Your task to perform on an android device: install app "DuckDuckGo Privacy Browser" Image 0: 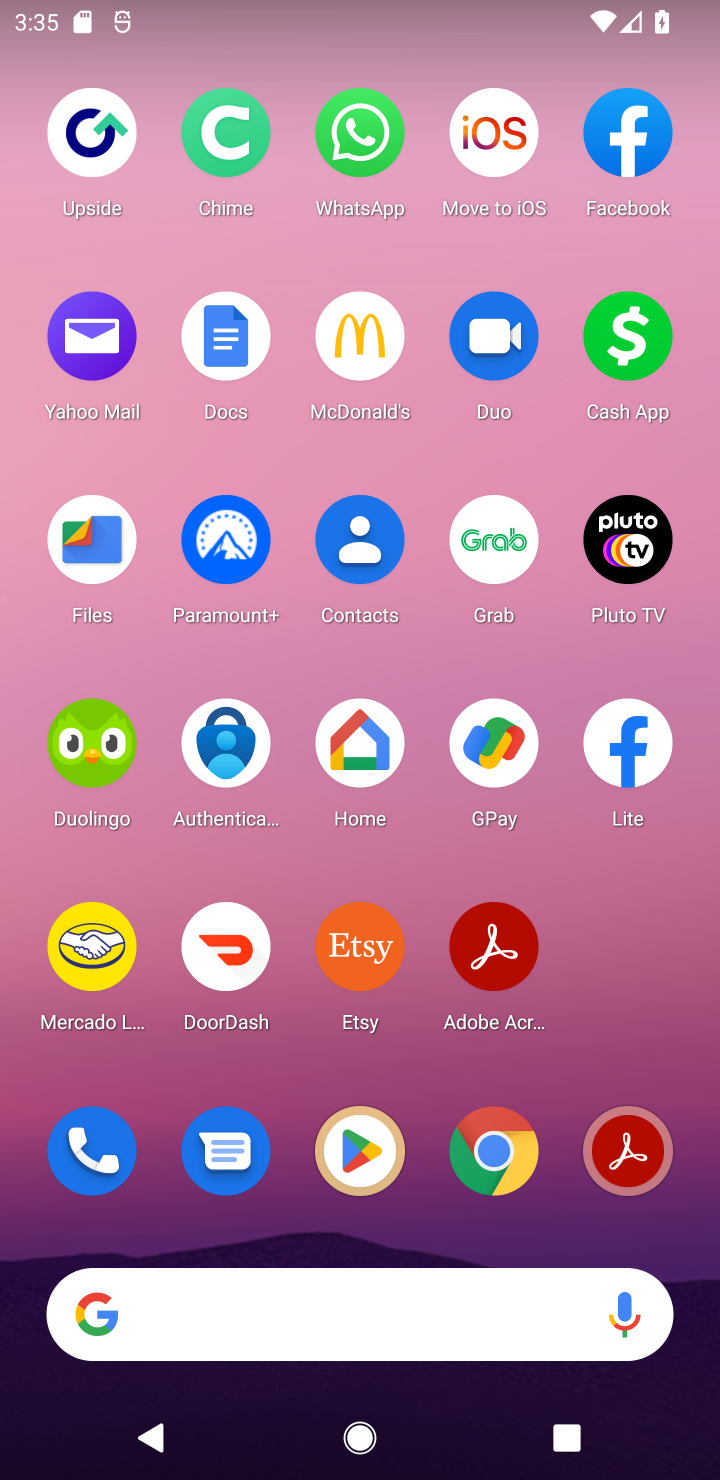
Step 0: click (382, 1132)
Your task to perform on an android device: install app "DuckDuckGo Privacy Browser" Image 1: 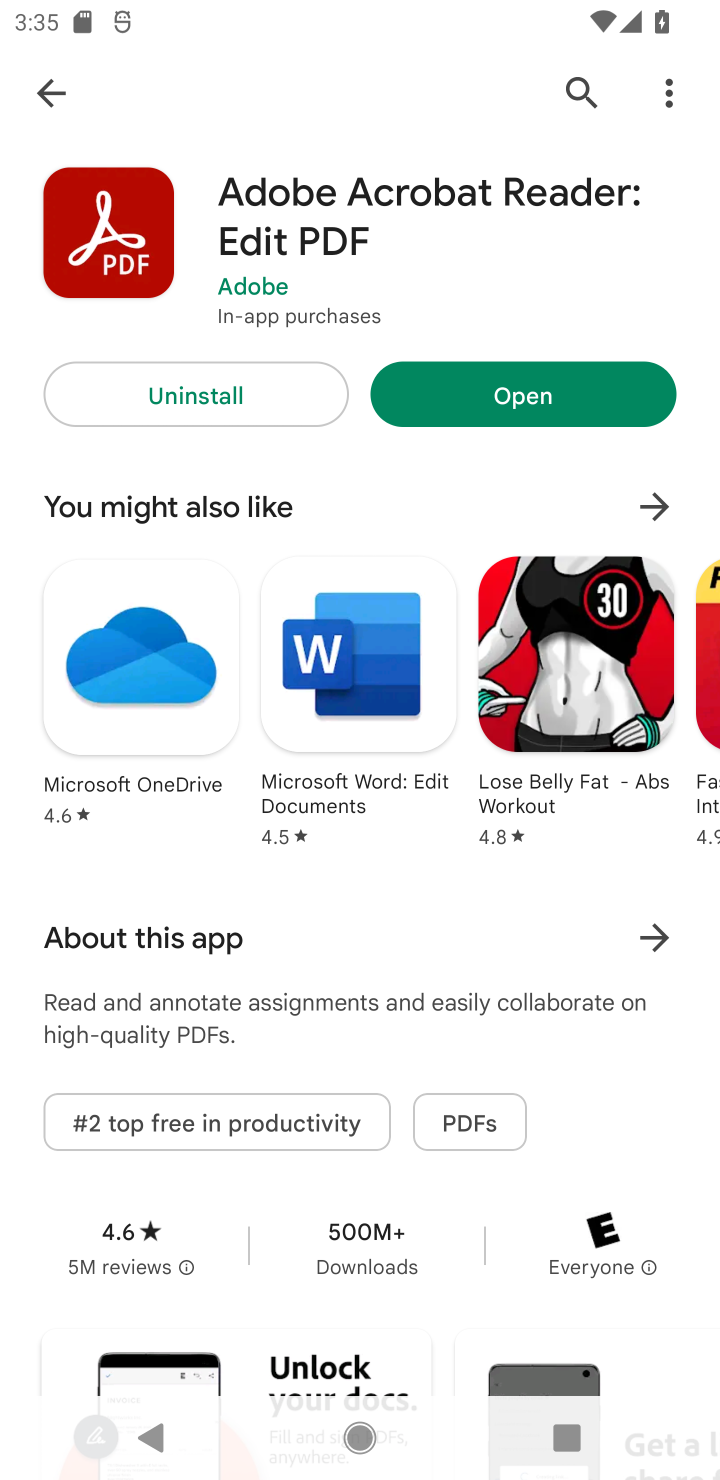
Step 1: click (24, 99)
Your task to perform on an android device: install app "DuckDuckGo Privacy Browser" Image 2: 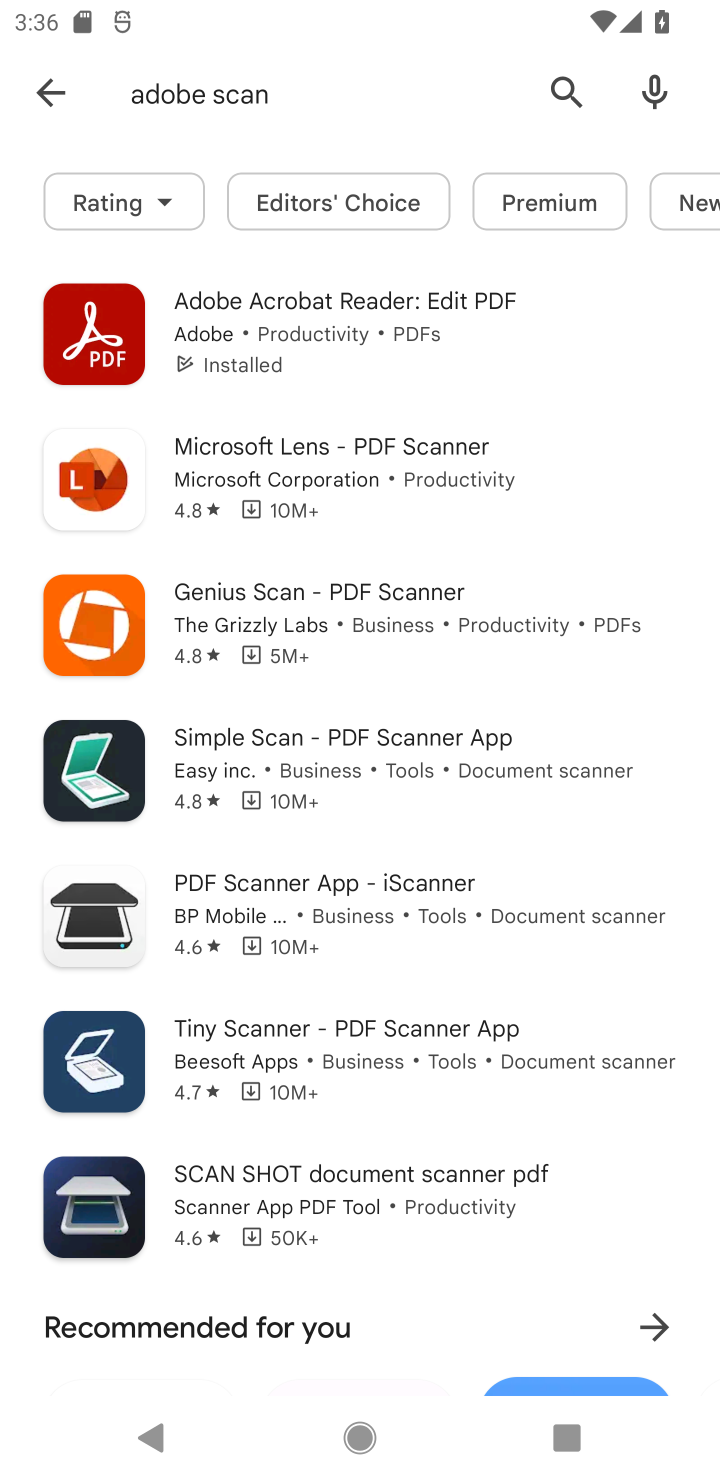
Step 2: click (535, 92)
Your task to perform on an android device: install app "DuckDuckGo Privacy Browser" Image 3: 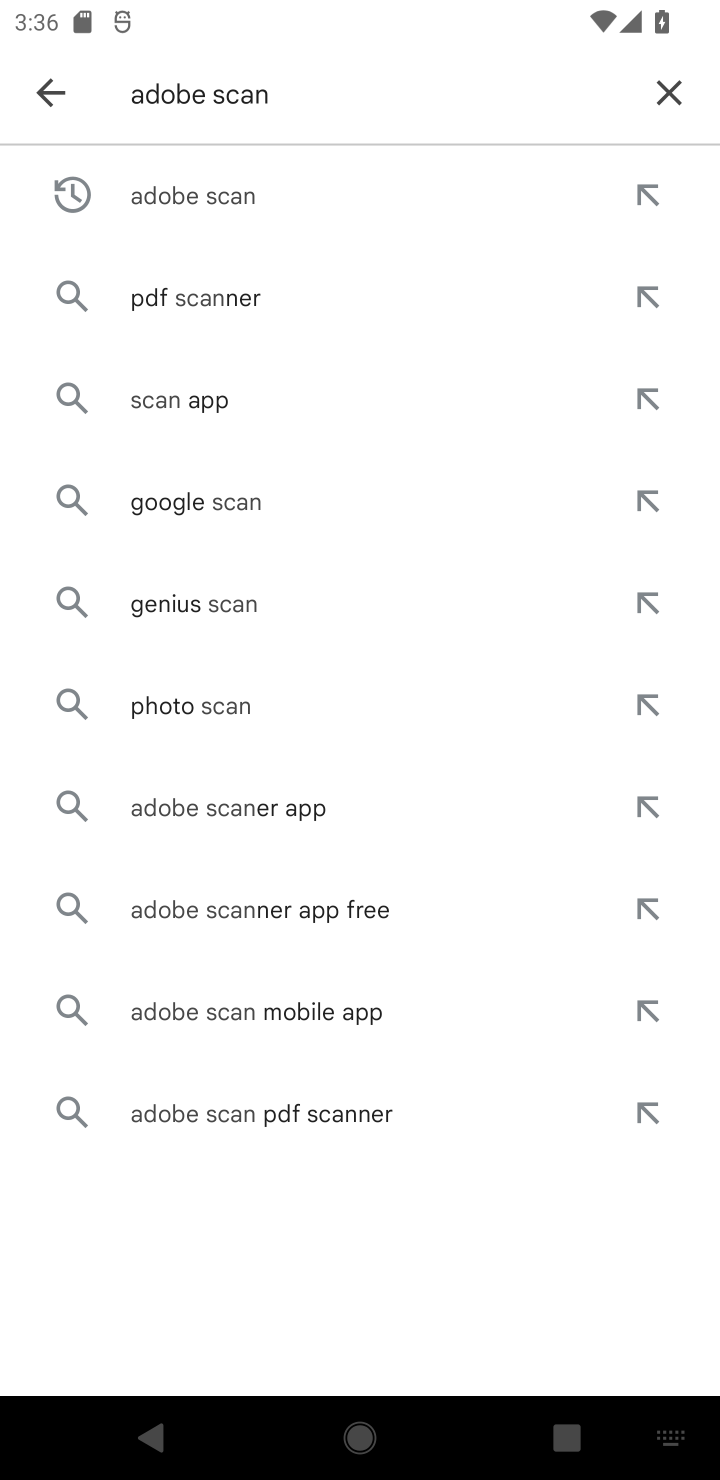
Step 3: click (653, 92)
Your task to perform on an android device: install app "DuckDuckGo Privacy Browser" Image 4: 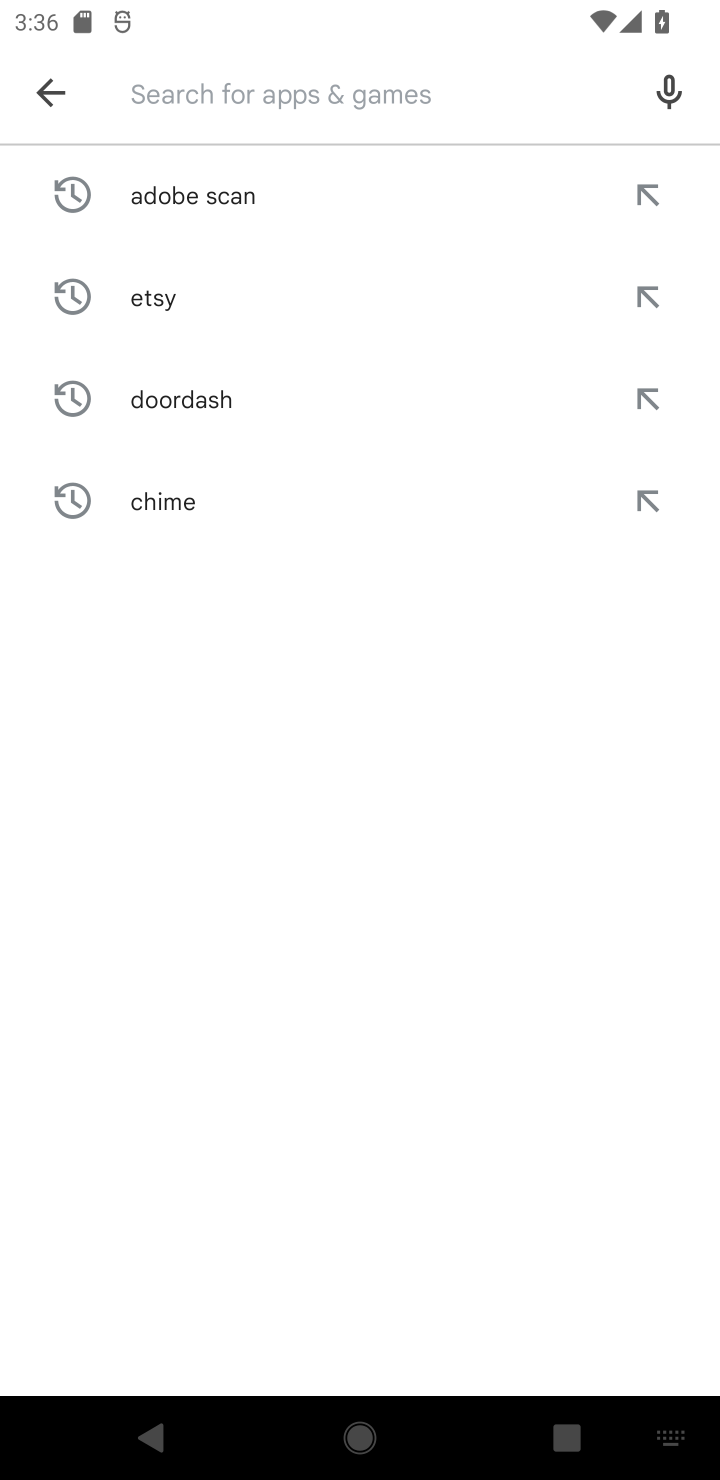
Step 4: type "duckduck go"
Your task to perform on an android device: install app "DuckDuckGo Privacy Browser" Image 5: 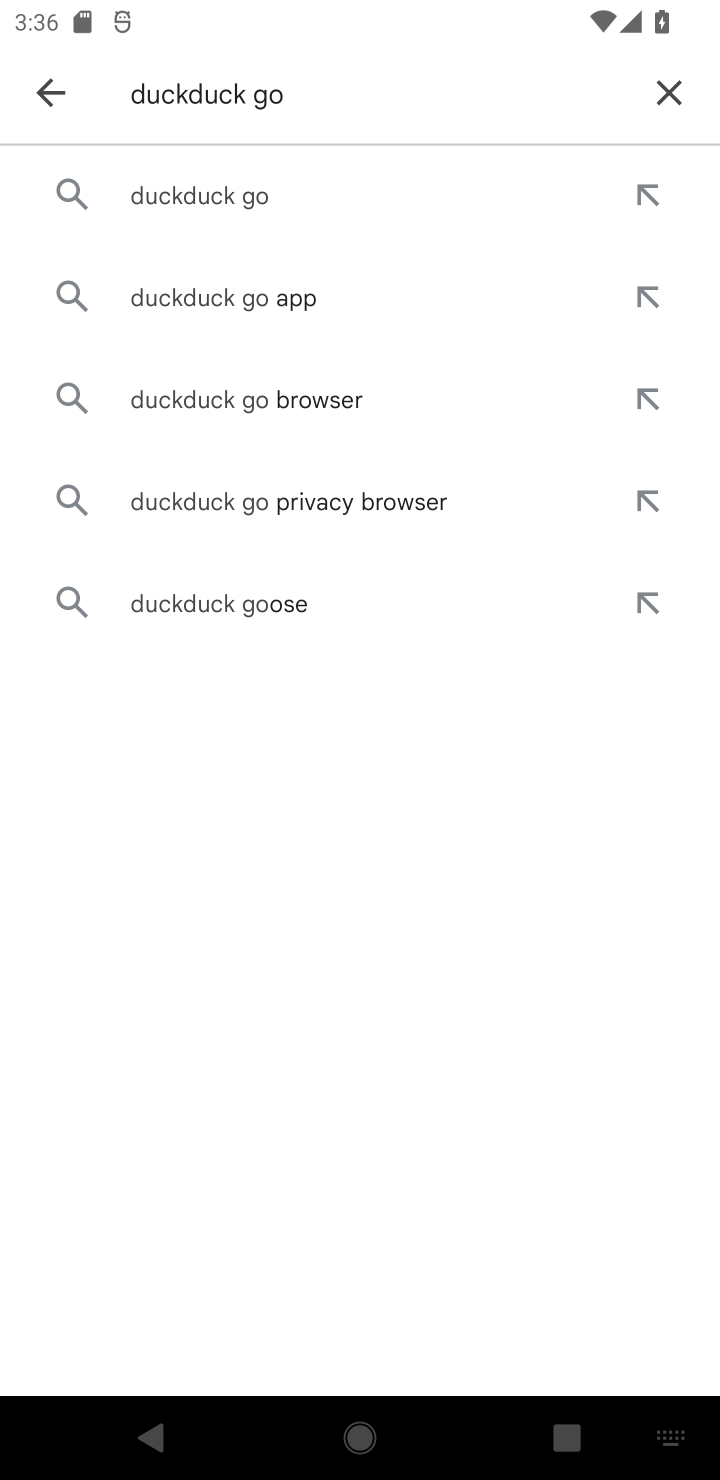
Step 5: click (394, 212)
Your task to perform on an android device: install app "DuckDuckGo Privacy Browser" Image 6: 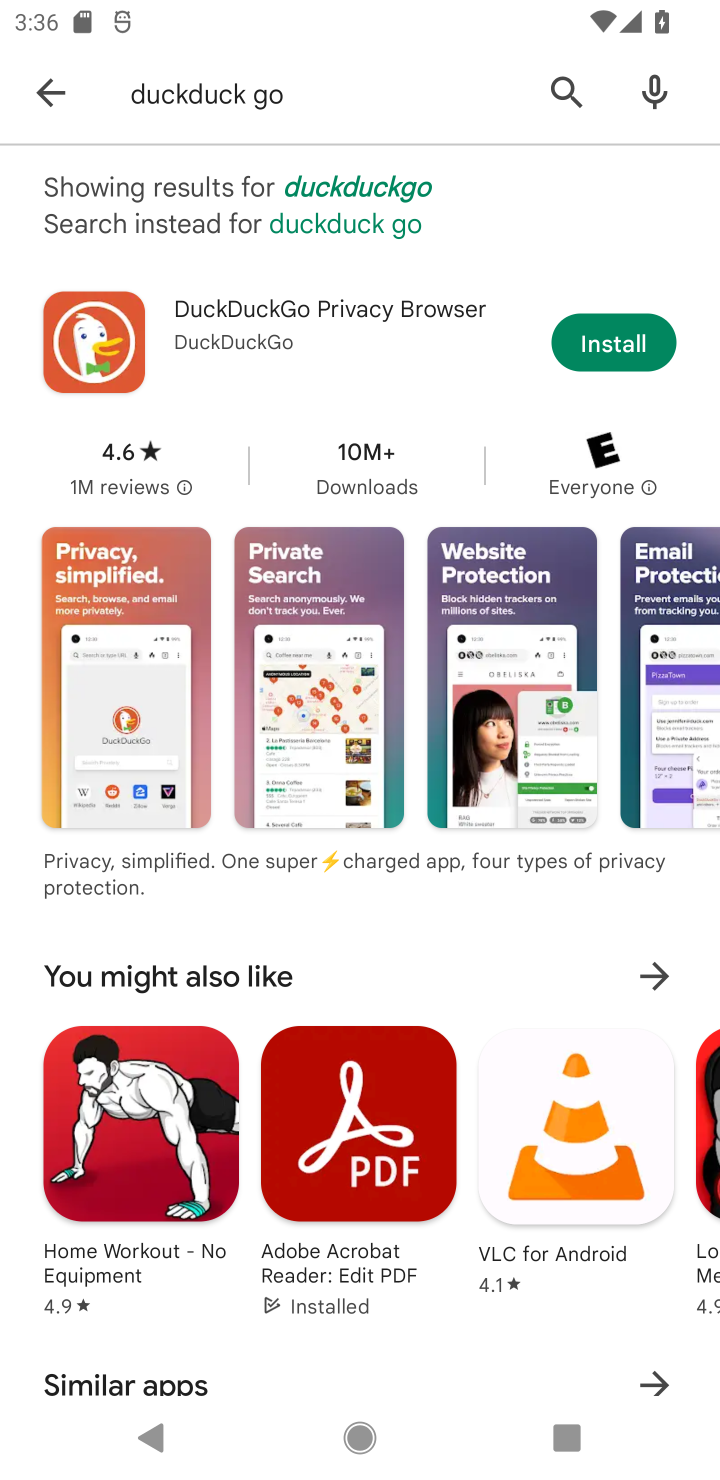
Step 6: click (621, 360)
Your task to perform on an android device: install app "DuckDuckGo Privacy Browser" Image 7: 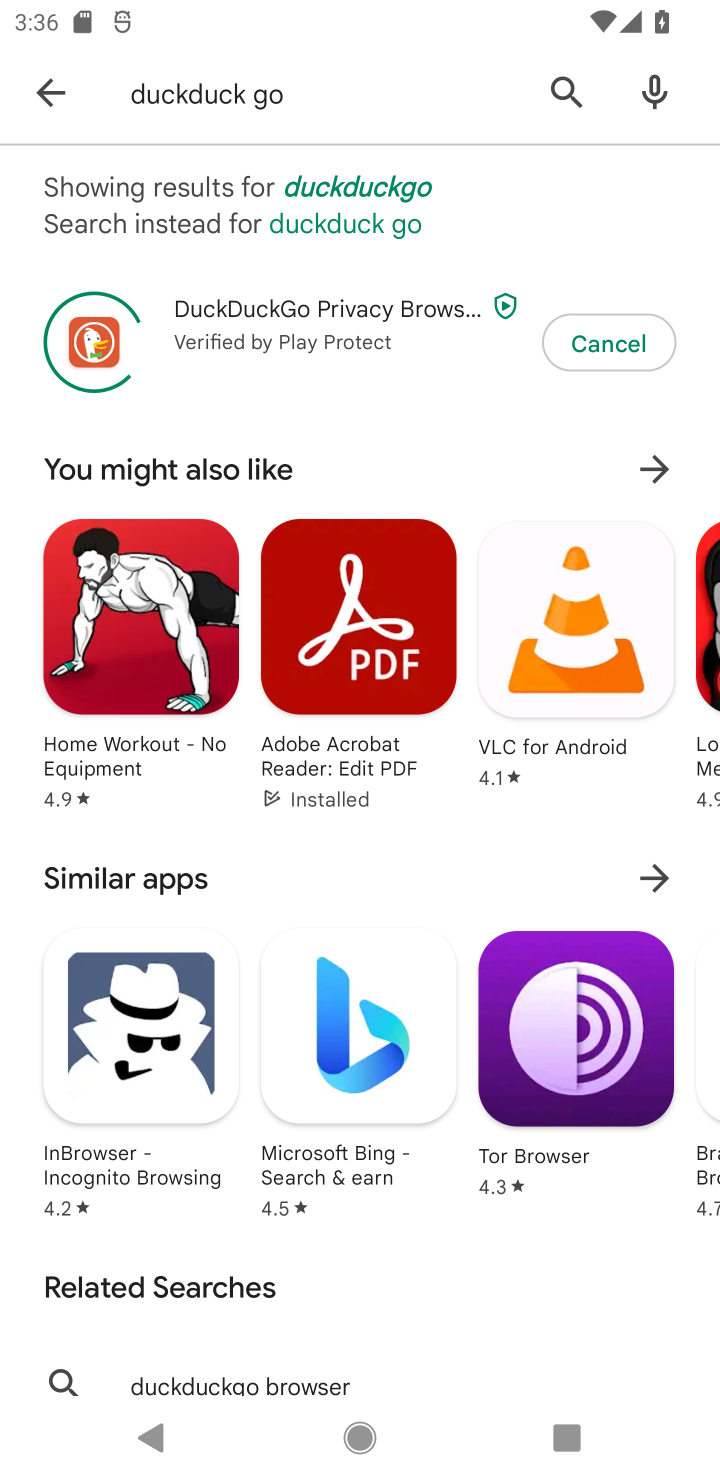
Step 7: task complete